Your task to perform on an android device: turn on bluetooth scan Image 0: 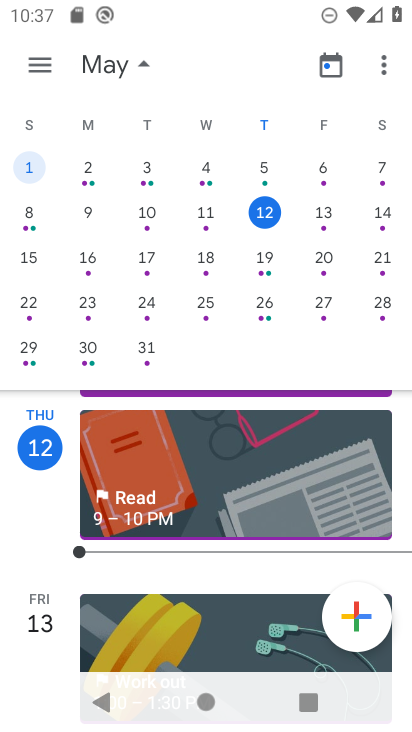
Step 0: press home button
Your task to perform on an android device: turn on bluetooth scan Image 1: 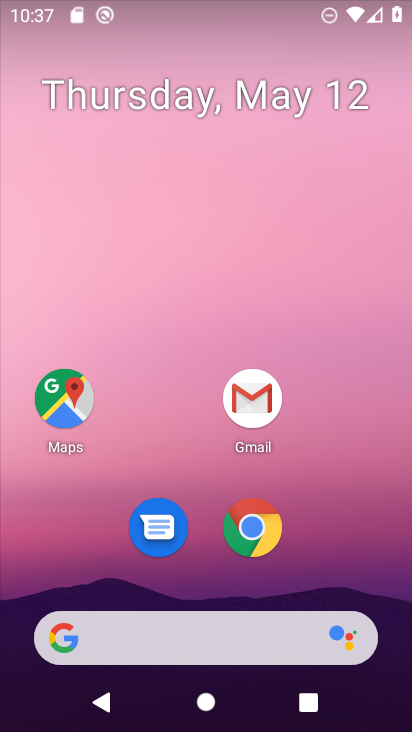
Step 1: drag from (372, 560) to (352, 171)
Your task to perform on an android device: turn on bluetooth scan Image 2: 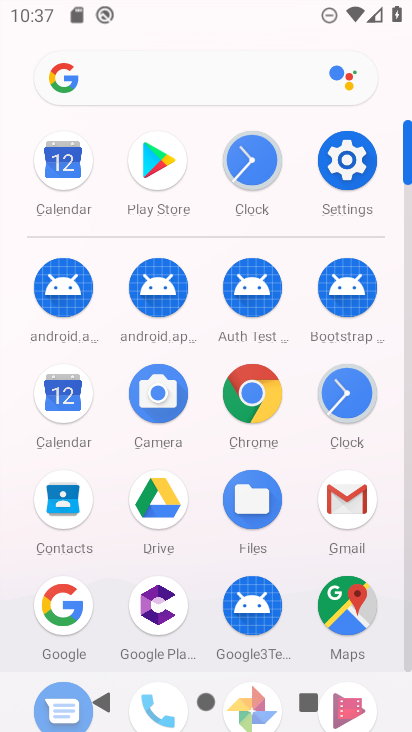
Step 2: click (363, 176)
Your task to perform on an android device: turn on bluetooth scan Image 3: 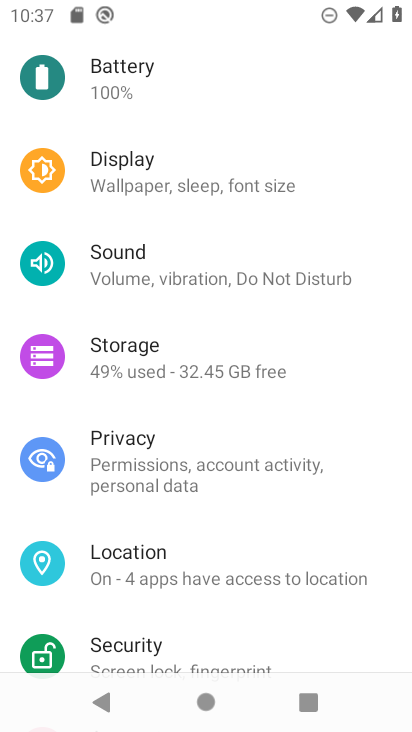
Step 3: click (248, 550)
Your task to perform on an android device: turn on bluetooth scan Image 4: 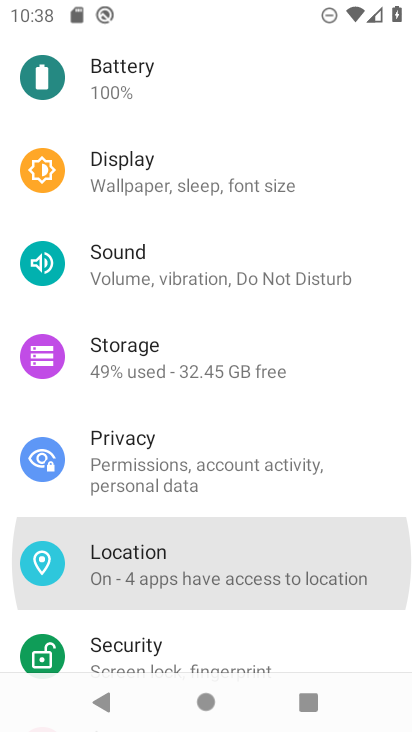
Step 4: drag from (248, 550) to (252, 360)
Your task to perform on an android device: turn on bluetooth scan Image 5: 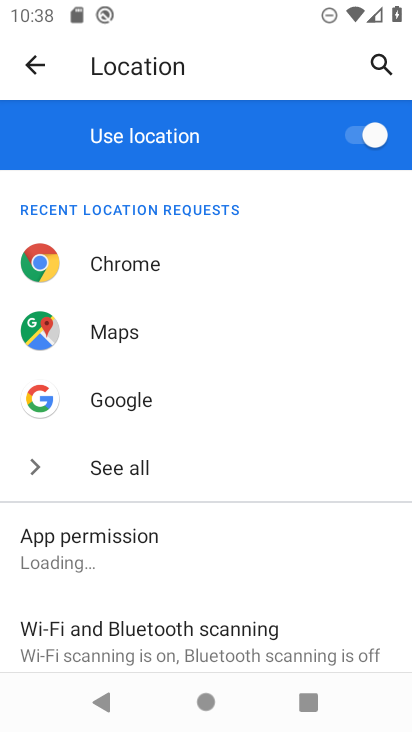
Step 5: click (245, 627)
Your task to perform on an android device: turn on bluetooth scan Image 6: 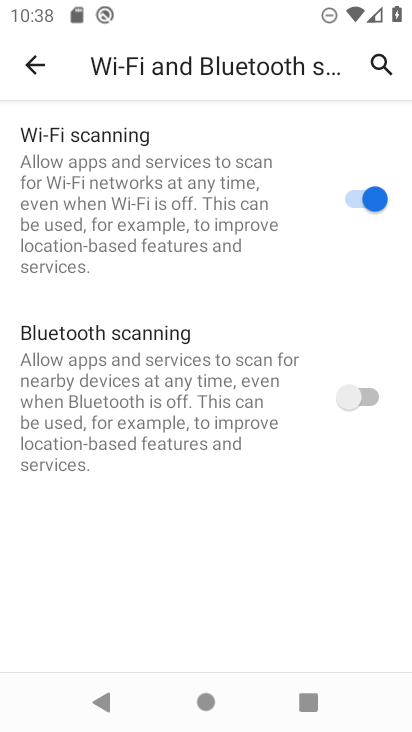
Step 6: click (354, 386)
Your task to perform on an android device: turn on bluetooth scan Image 7: 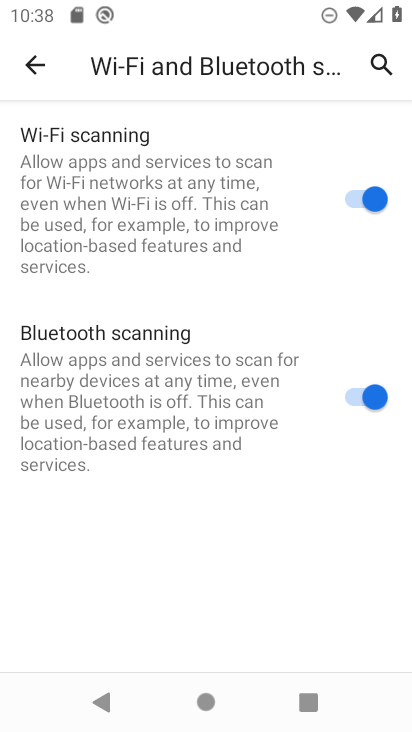
Step 7: task complete